Your task to perform on an android device: Open eBay Image 0: 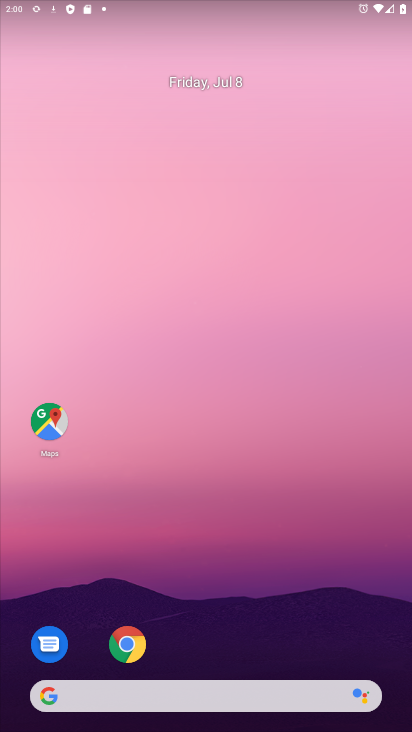
Step 0: drag from (198, 658) to (72, 156)
Your task to perform on an android device: Open eBay Image 1: 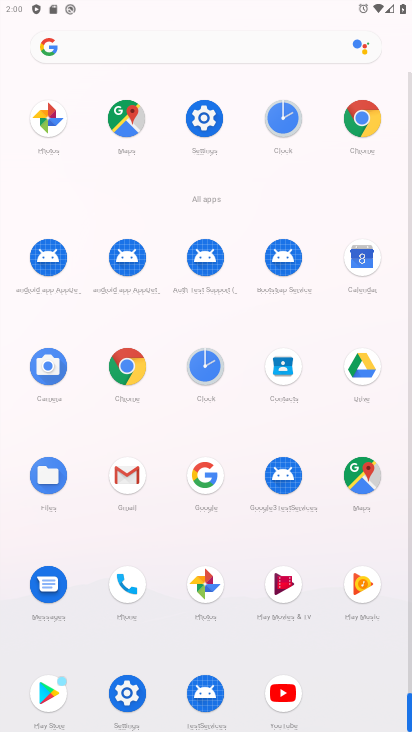
Step 1: click (118, 363)
Your task to perform on an android device: Open eBay Image 2: 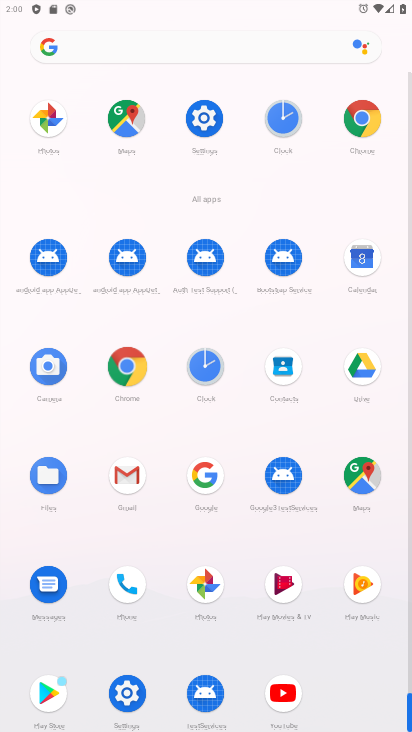
Step 2: click (123, 358)
Your task to perform on an android device: Open eBay Image 3: 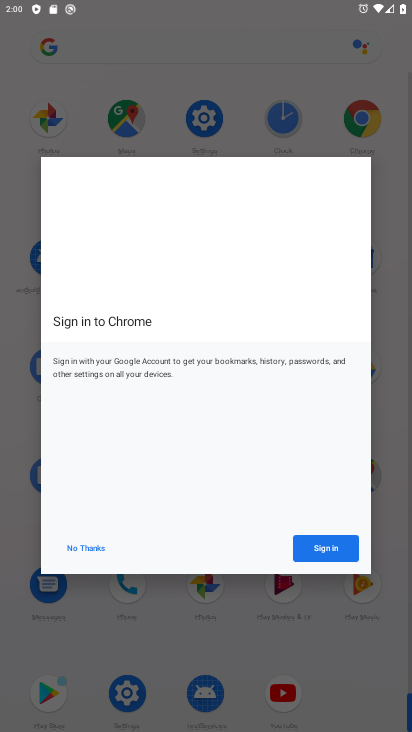
Step 3: click (89, 543)
Your task to perform on an android device: Open eBay Image 4: 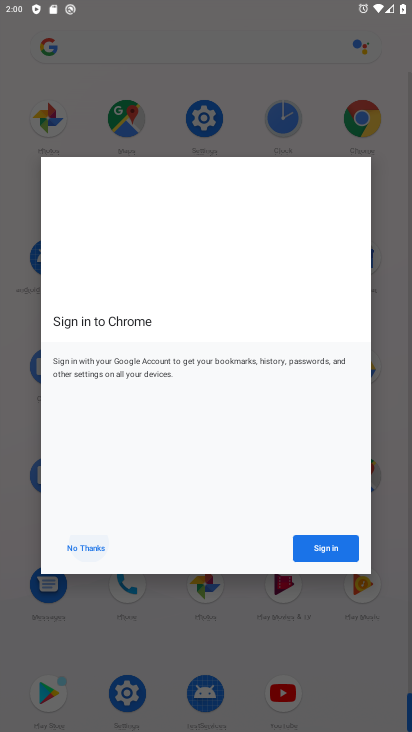
Step 4: click (89, 543)
Your task to perform on an android device: Open eBay Image 5: 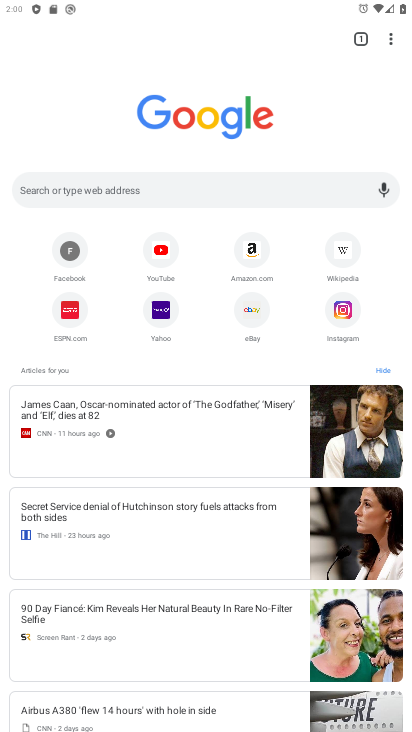
Step 5: click (245, 320)
Your task to perform on an android device: Open eBay Image 6: 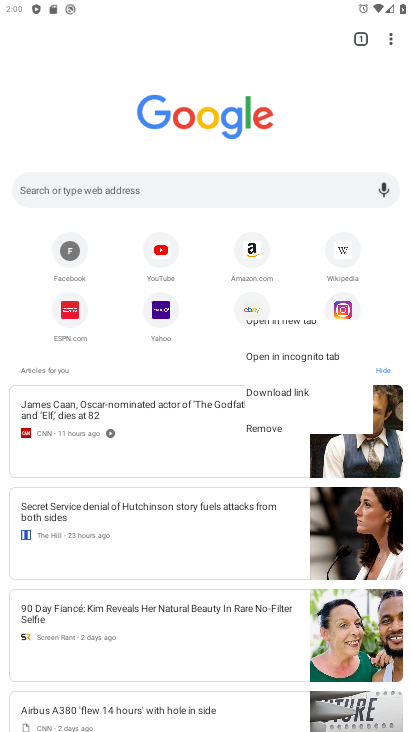
Step 6: click (252, 314)
Your task to perform on an android device: Open eBay Image 7: 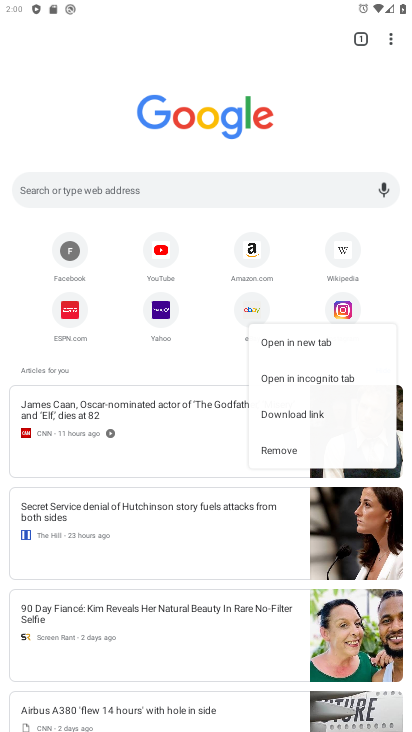
Step 7: click (254, 314)
Your task to perform on an android device: Open eBay Image 8: 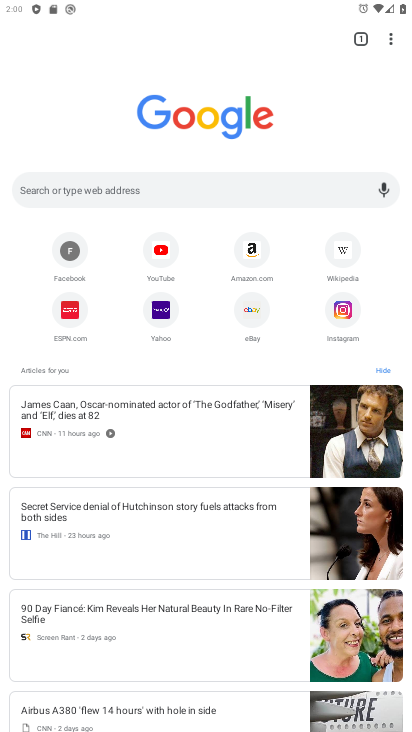
Step 8: click (254, 314)
Your task to perform on an android device: Open eBay Image 9: 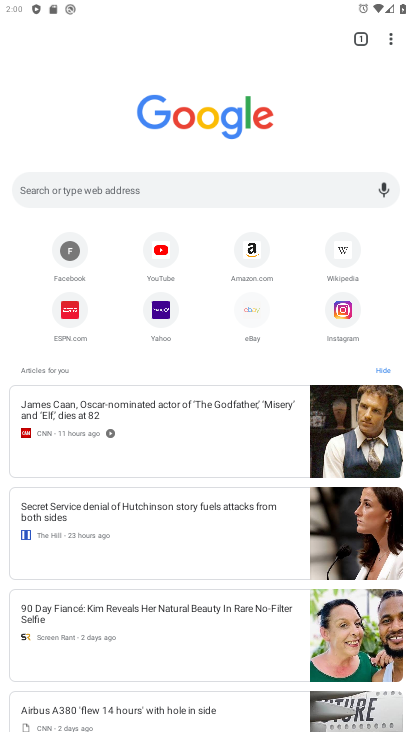
Step 9: click (254, 314)
Your task to perform on an android device: Open eBay Image 10: 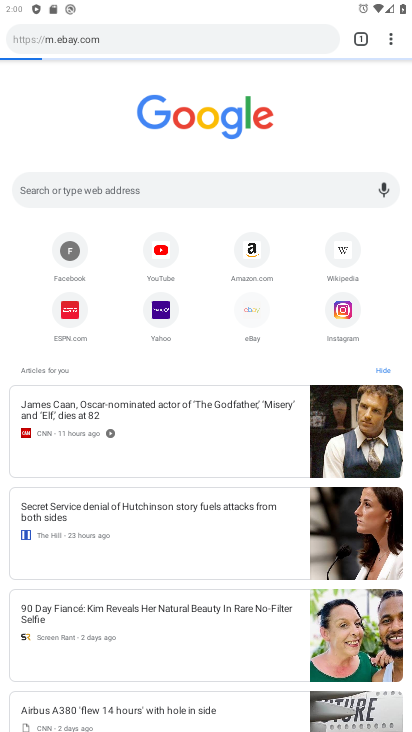
Step 10: click (252, 317)
Your task to perform on an android device: Open eBay Image 11: 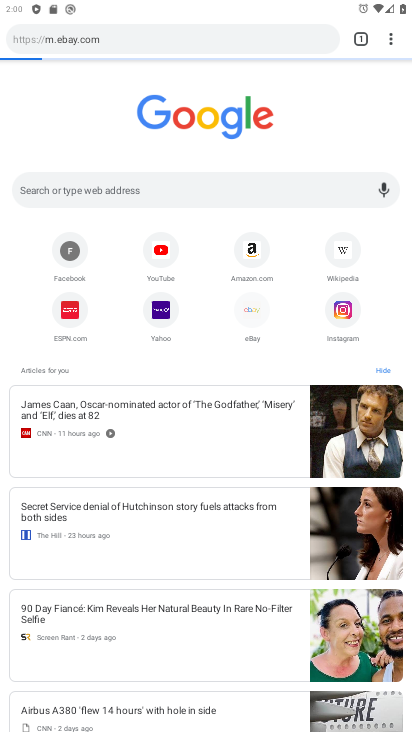
Step 11: click (252, 317)
Your task to perform on an android device: Open eBay Image 12: 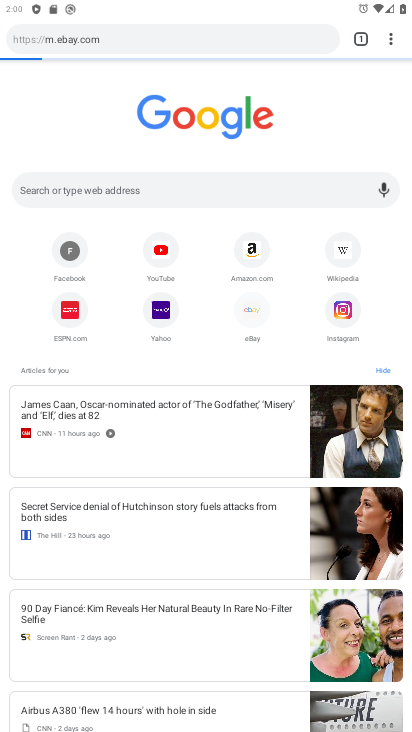
Step 12: click (252, 317)
Your task to perform on an android device: Open eBay Image 13: 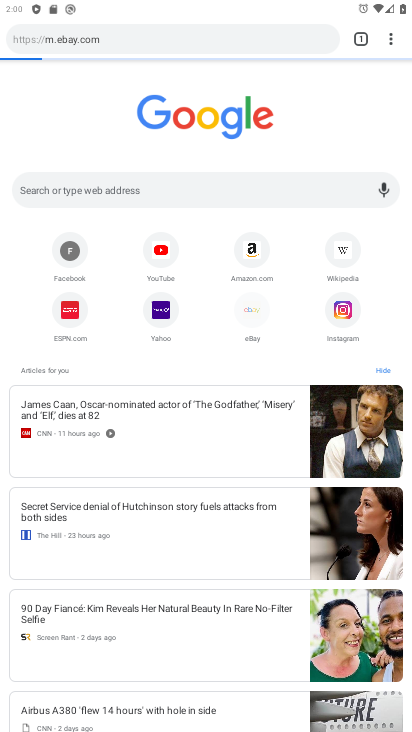
Step 13: click (252, 317)
Your task to perform on an android device: Open eBay Image 14: 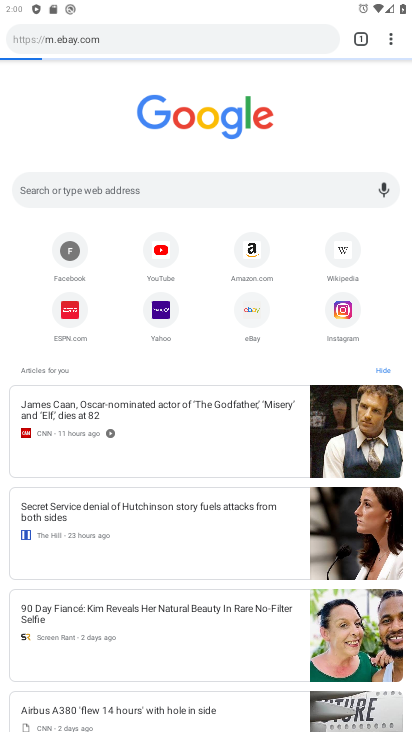
Step 14: click (253, 317)
Your task to perform on an android device: Open eBay Image 15: 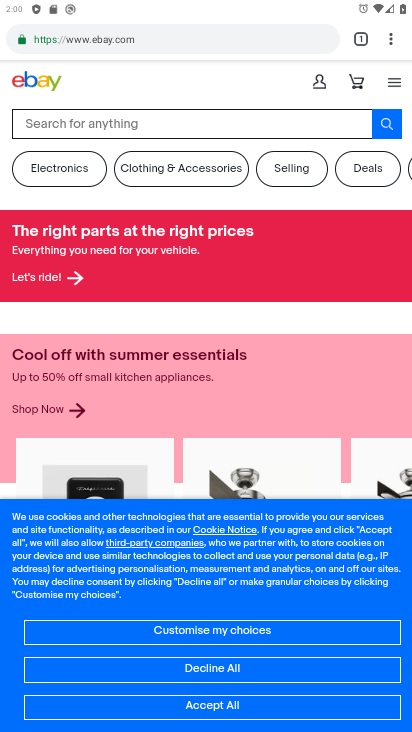
Step 15: task complete